Your task to perform on an android device: change keyboard looks Image 0: 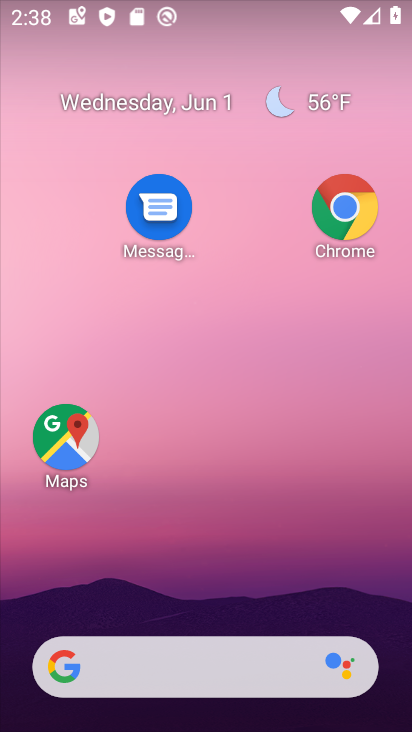
Step 0: drag from (234, 560) to (345, 41)
Your task to perform on an android device: change keyboard looks Image 1: 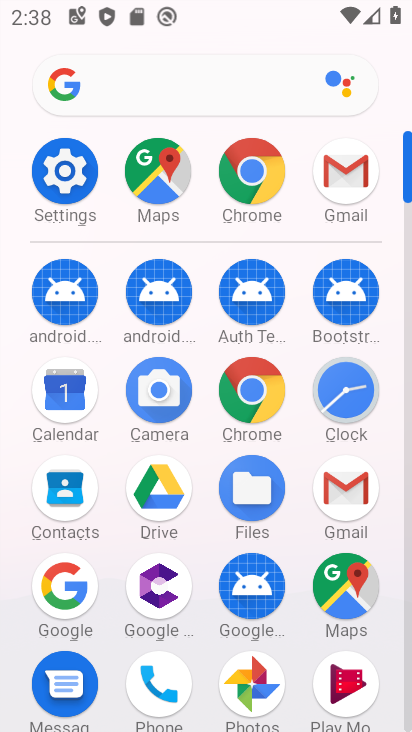
Step 1: click (73, 196)
Your task to perform on an android device: change keyboard looks Image 2: 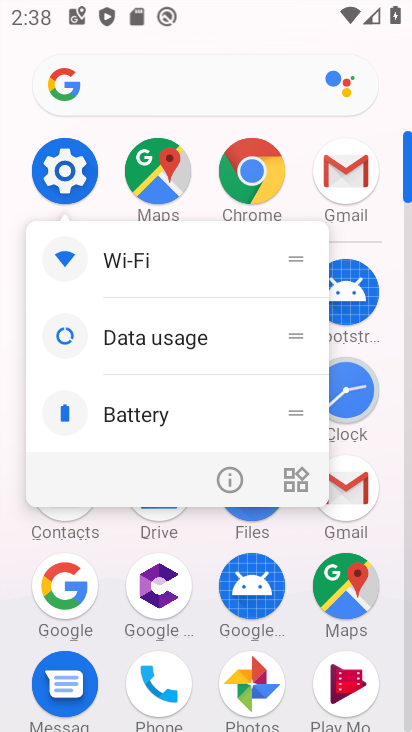
Step 2: click (233, 473)
Your task to perform on an android device: change keyboard looks Image 3: 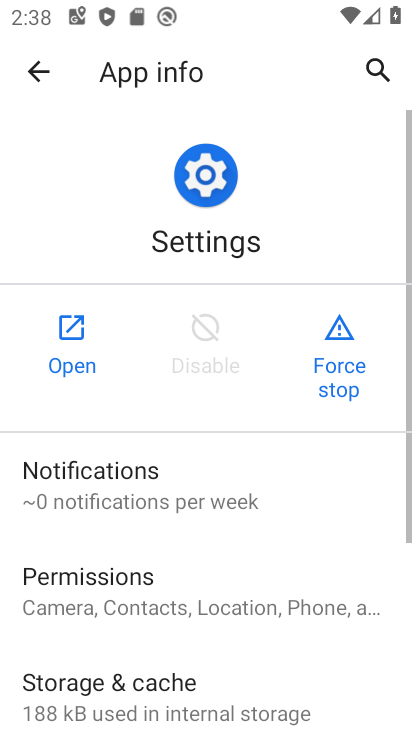
Step 3: click (52, 302)
Your task to perform on an android device: change keyboard looks Image 4: 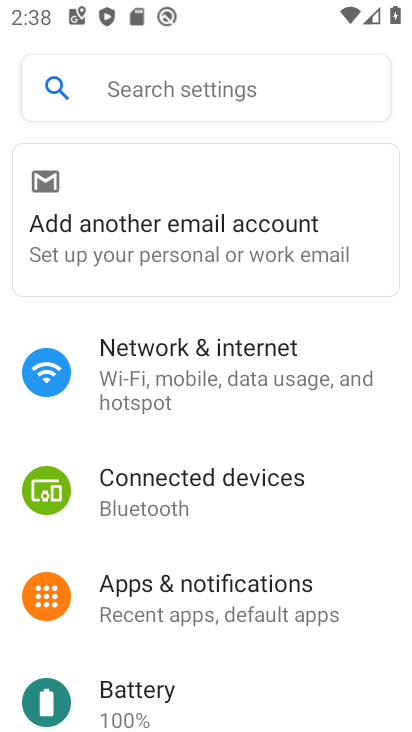
Step 4: drag from (228, 618) to (368, 17)
Your task to perform on an android device: change keyboard looks Image 5: 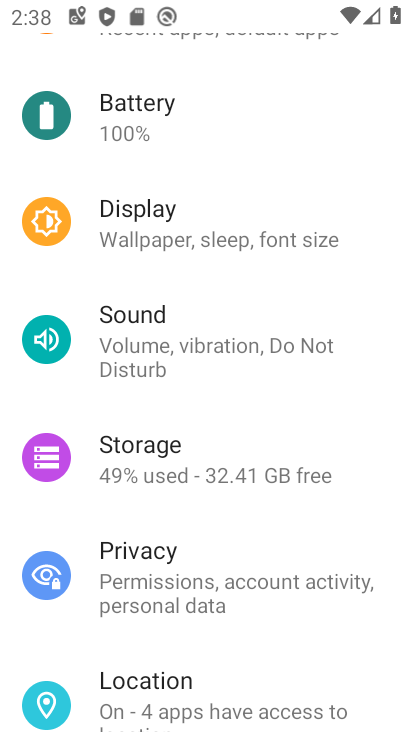
Step 5: drag from (215, 626) to (296, 258)
Your task to perform on an android device: change keyboard looks Image 6: 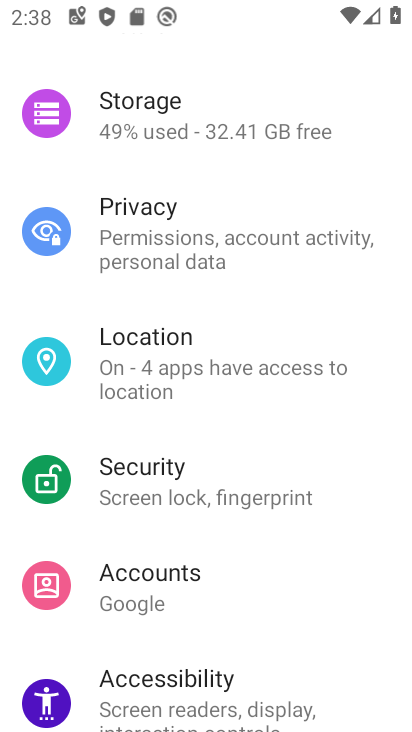
Step 6: drag from (269, 631) to (328, 19)
Your task to perform on an android device: change keyboard looks Image 7: 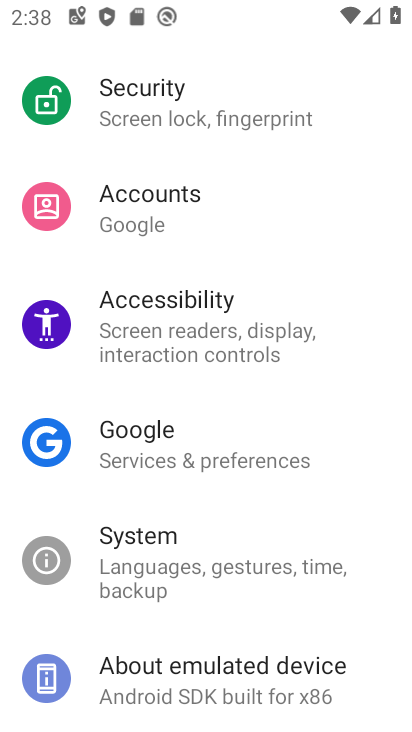
Step 7: click (167, 568)
Your task to perform on an android device: change keyboard looks Image 8: 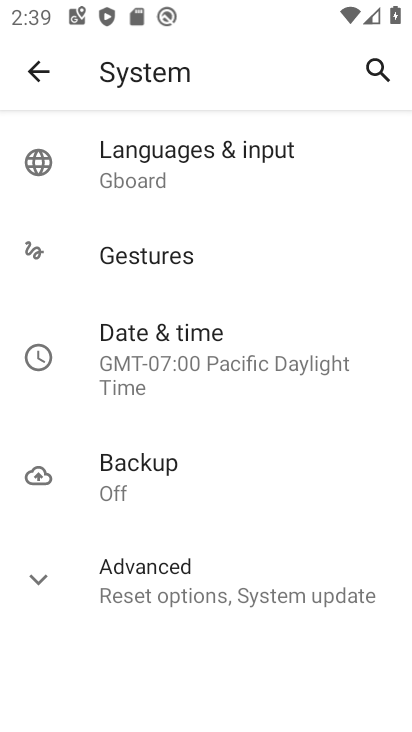
Step 8: click (219, 171)
Your task to perform on an android device: change keyboard looks Image 9: 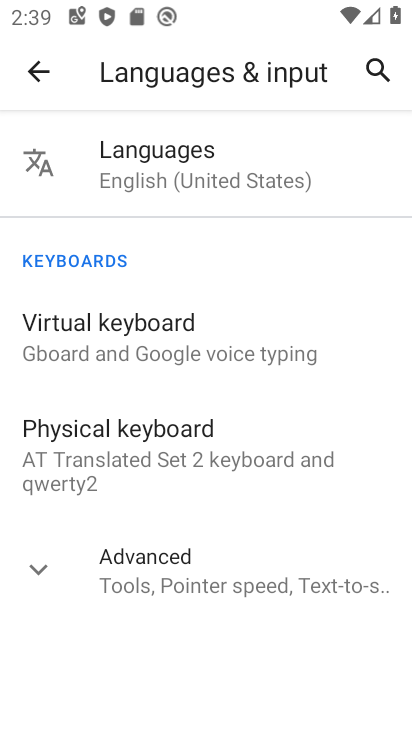
Step 9: click (131, 318)
Your task to perform on an android device: change keyboard looks Image 10: 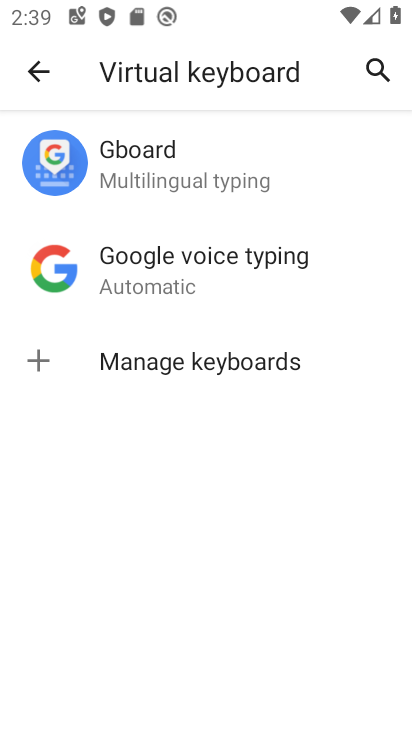
Step 10: click (210, 183)
Your task to perform on an android device: change keyboard looks Image 11: 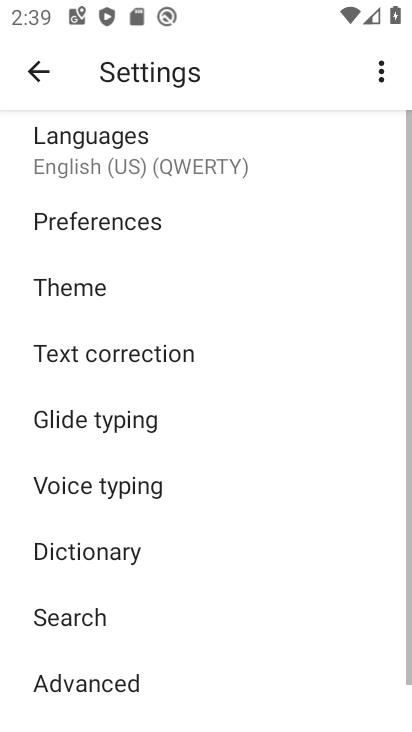
Step 11: click (161, 276)
Your task to perform on an android device: change keyboard looks Image 12: 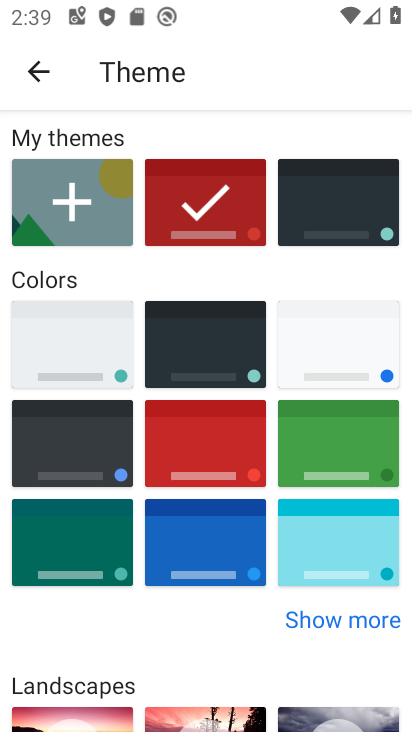
Step 12: click (358, 215)
Your task to perform on an android device: change keyboard looks Image 13: 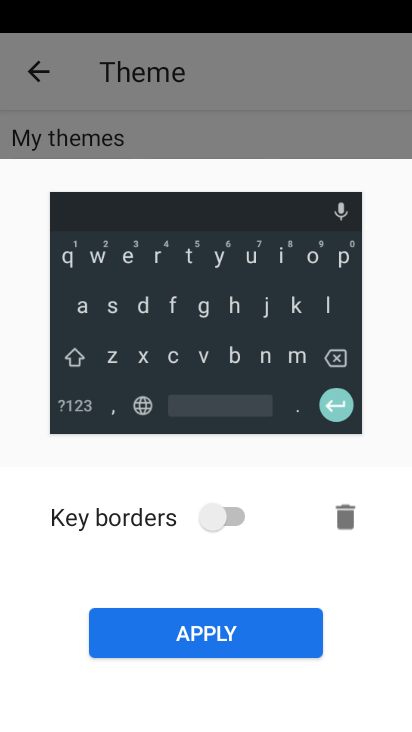
Step 13: click (173, 642)
Your task to perform on an android device: change keyboard looks Image 14: 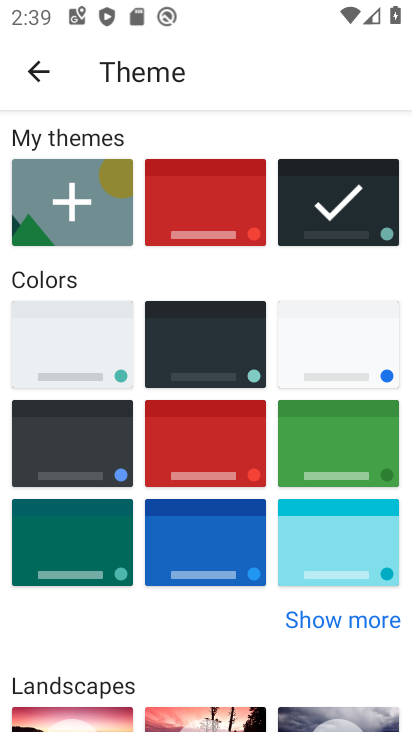
Step 14: task complete